Your task to perform on an android device: Show me the alarms in the clock app Image 0: 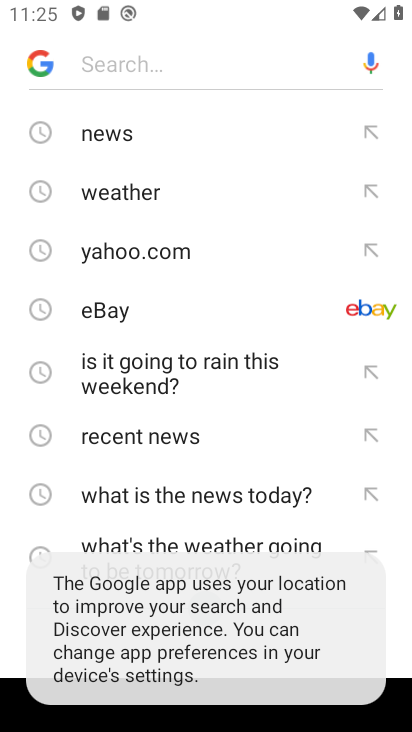
Step 0: press back button
Your task to perform on an android device: Show me the alarms in the clock app Image 1: 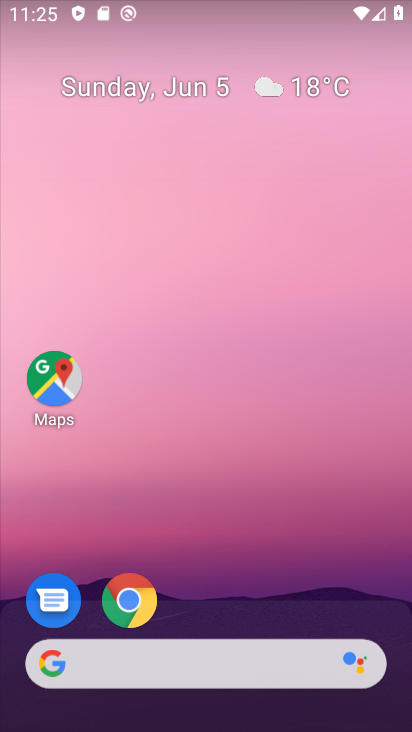
Step 1: drag from (396, 688) to (313, 172)
Your task to perform on an android device: Show me the alarms in the clock app Image 2: 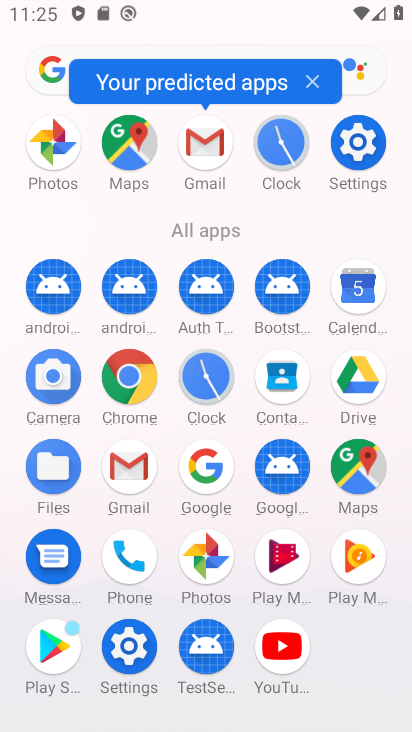
Step 2: click (211, 385)
Your task to perform on an android device: Show me the alarms in the clock app Image 3: 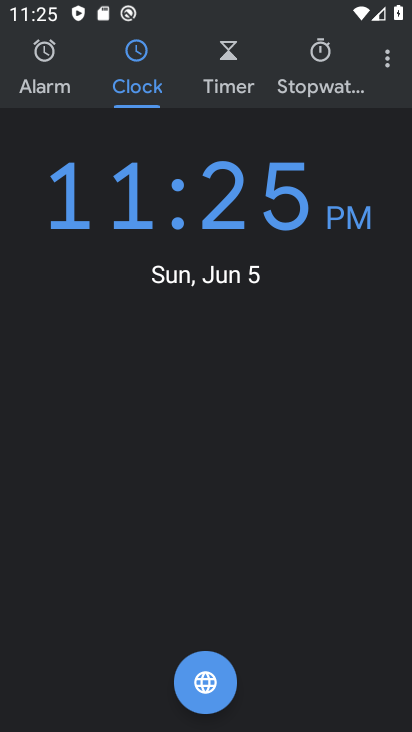
Step 3: click (47, 76)
Your task to perform on an android device: Show me the alarms in the clock app Image 4: 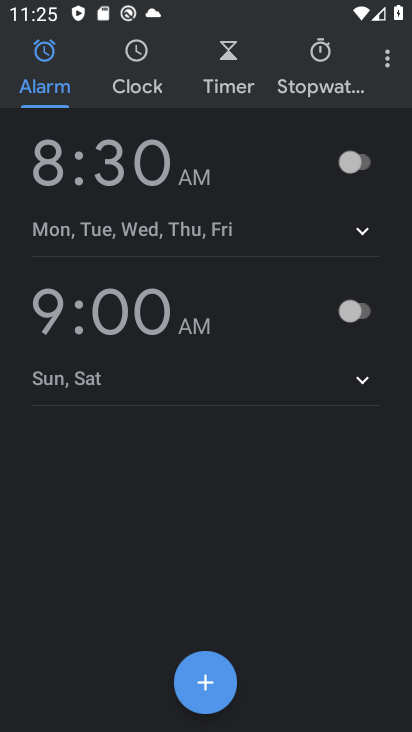
Step 4: task complete